Your task to perform on an android device: Open display settings Image 0: 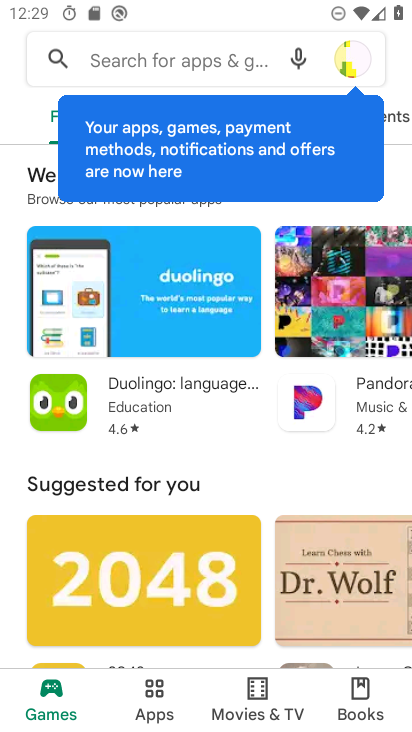
Step 0: press home button
Your task to perform on an android device: Open display settings Image 1: 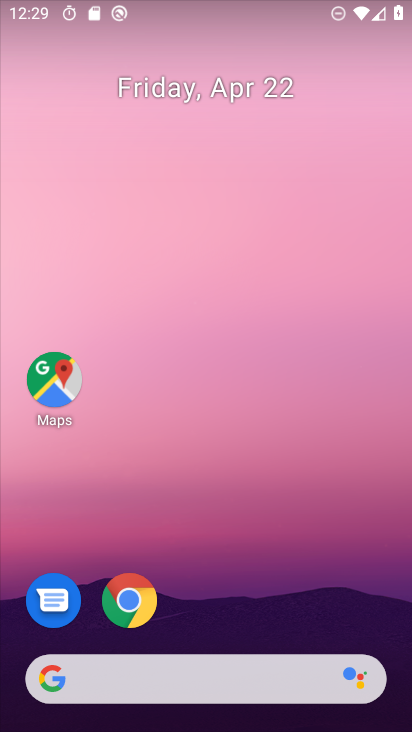
Step 1: drag from (230, 603) to (246, 48)
Your task to perform on an android device: Open display settings Image 2: 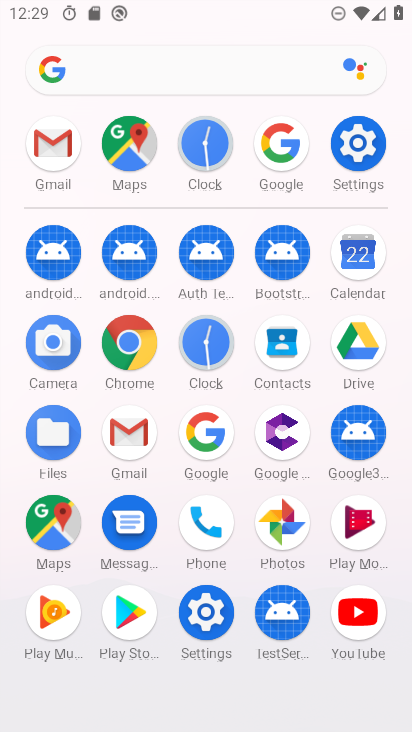
Step 2: click (358, 144)
Your task to perform on an android device: Open display settings Image 3: 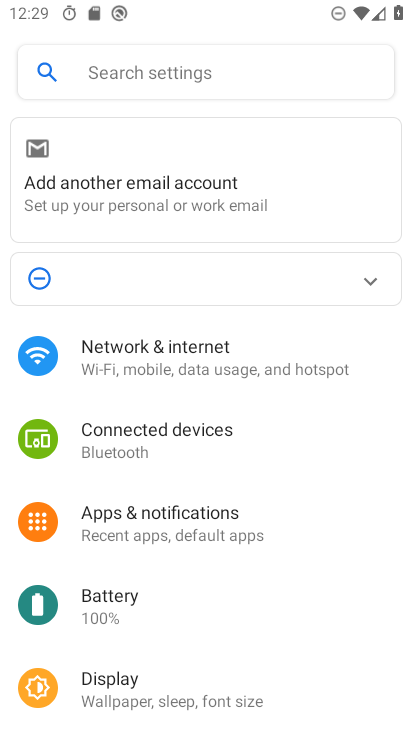
Step 3: drag from (182, 596) to (252, 436)
Your task to perform on an android device: Open display settings Image 4: 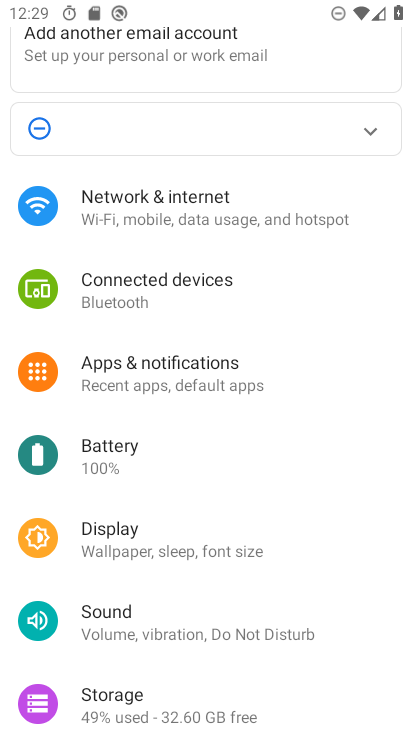
Step 4: click (149, 547)
Your task to perform on an android device: Open display settings Image 5: 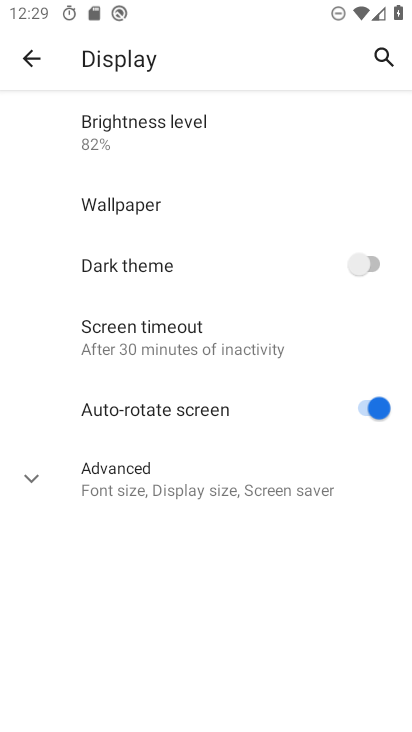
Step 5: task complete